Your task to perform on an android device: What's the weather? Image 0: 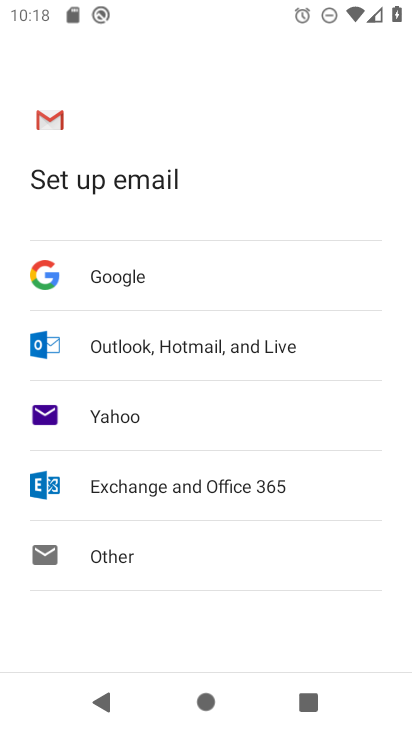
Step 0: press home button
Your task to perform on an android device: What's the weather? Image 1: 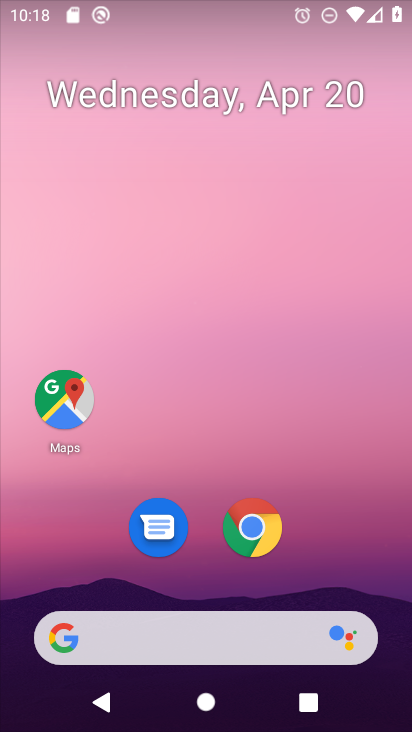
Step 1: click (166, 607)
Your task to perform on an android device: What's the weather? Image 2: 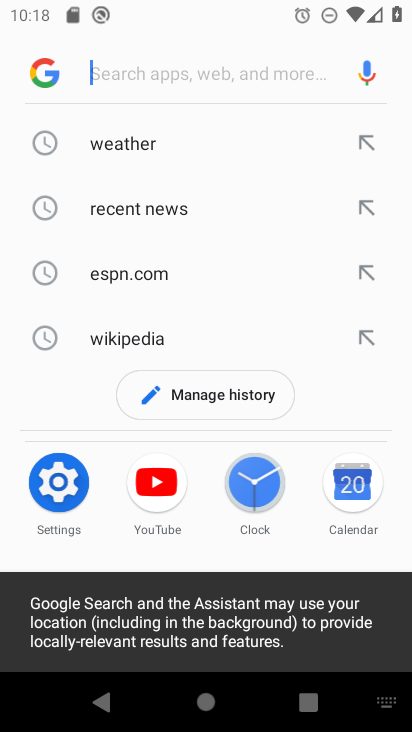
Step 2: click (139, 152)
Your task to perform on an android device: What's the weather? Image 3: 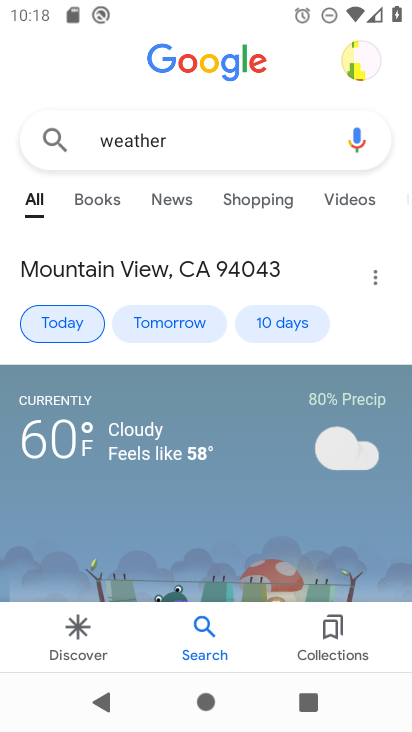
Step 3: task complete